Your task to perform on an android device: Open Wikipedia Image 0: 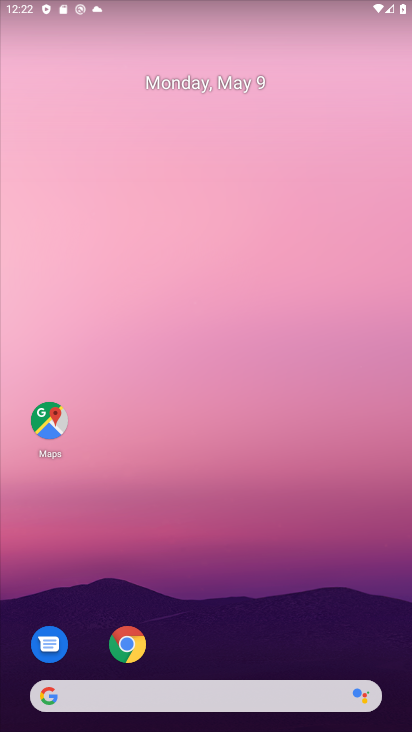
Step 0: drag from (350, 687) to (49, 2)
Your task to perform on an android device: Open Wikipedia Image 1: 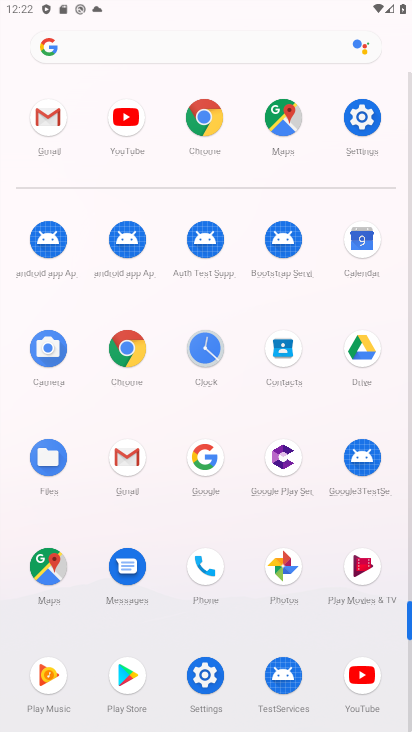
Step 1: click (204, 120)
Your task to perform on an android device: Open Wikipedia Image 2: 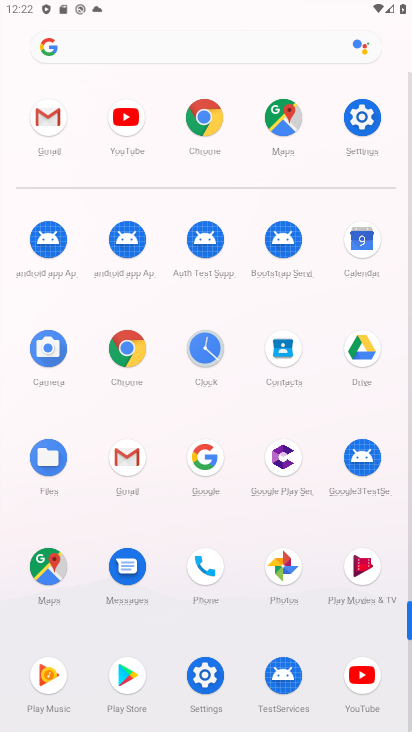
Step 2: click (204, 120)
Your task to perform on an android device: Open Wikipedia Image 3: 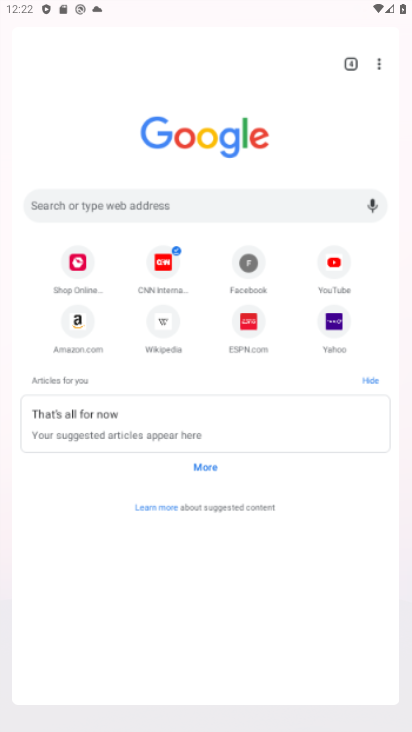
Step 3: click (204, 120)
Your task to perform on an android device: Open Wikipedia Image 4: 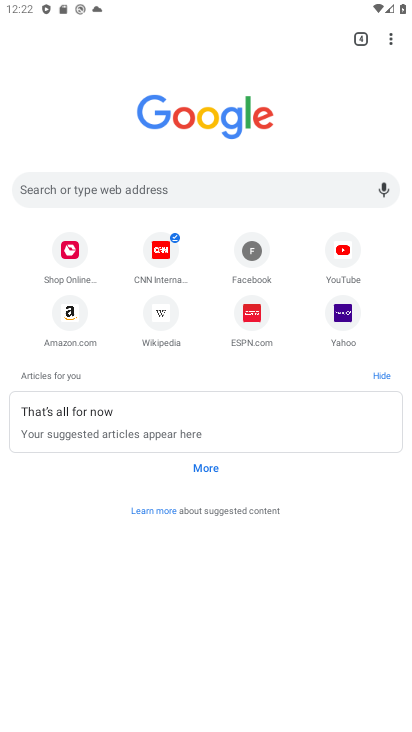
Step 4: click (164, 305)
Your task to perform on an android device: Open Wikipedia Image 5: 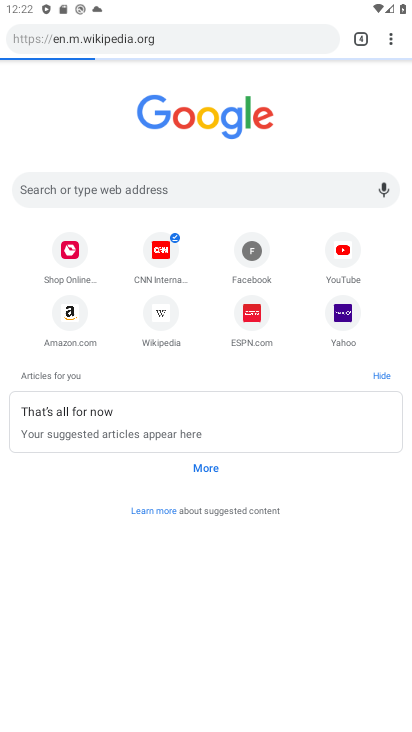
Step 5: click (163, 304)
Your task to perform on an android device: Open Wikipedia Image 6: 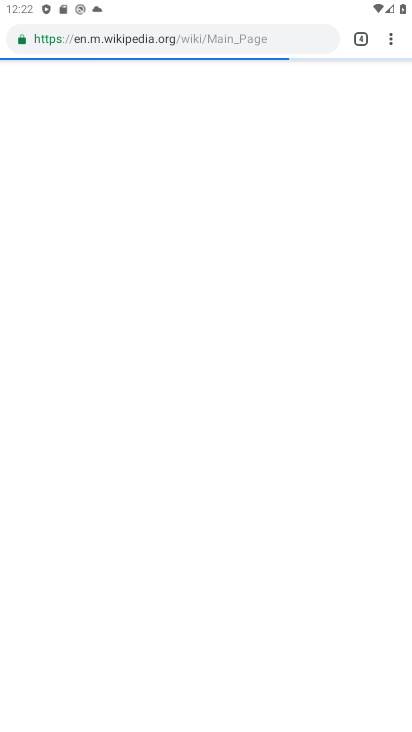
Step 6: click (159, 300)
Your task to perform on an android device: Open Wikipedia Image 7: 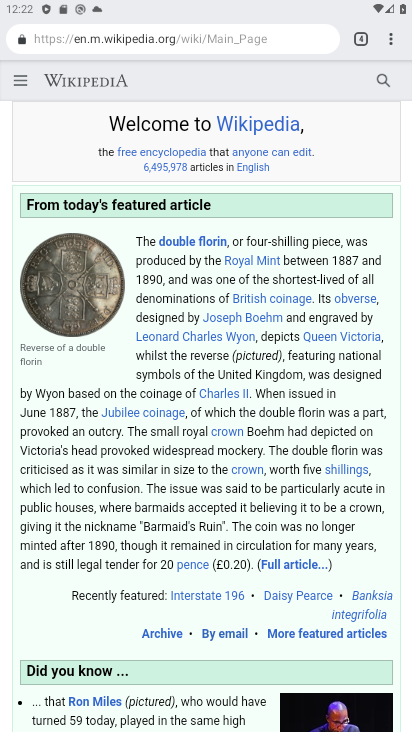
Step 7: task complete